Your task to perform on an android device: What's the weather? Image 0: 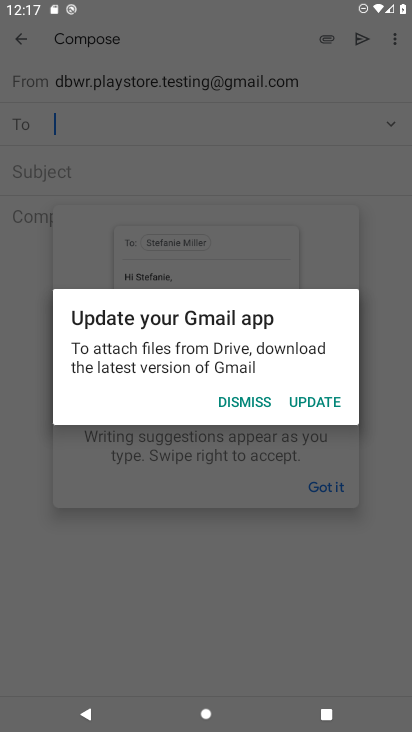
Step 0: press home button
Your task to perform on an android device: What's the weather? Image 1: 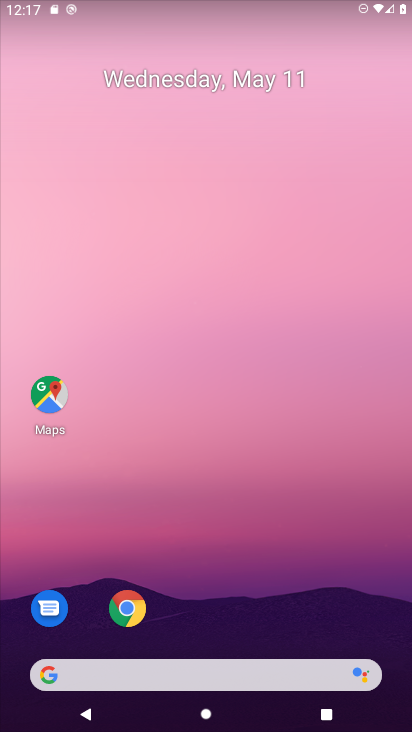
Step 1: click (215, 677)
Your task to perform on an android device: What's the weather? Image 2: 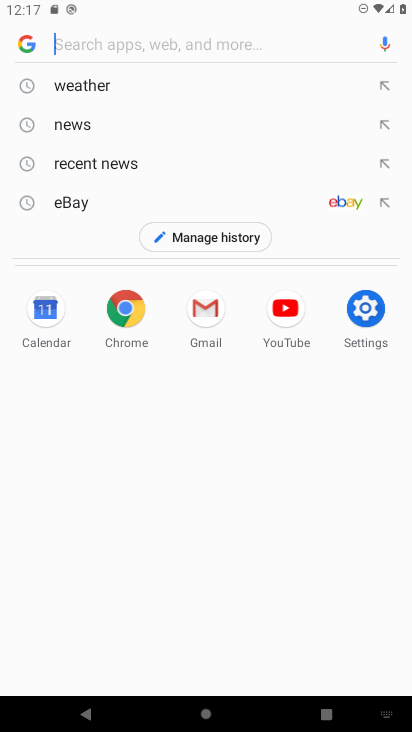
Step 2: click (75, 84)
Your task to perform on an android device: What's the weather? Image 3: 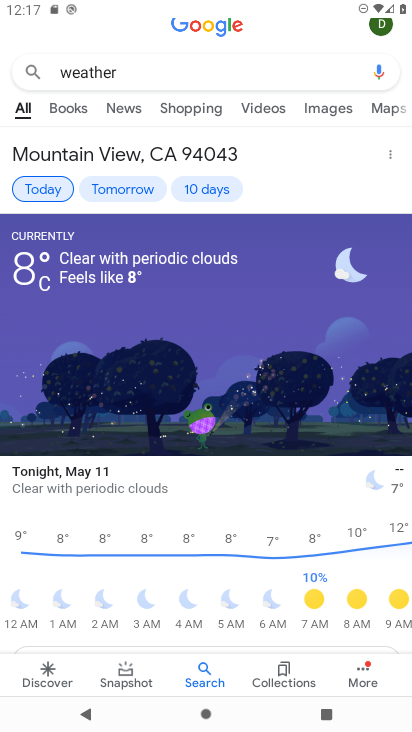
Step 3: task complete